Your task to perform on an android device: View the shopping cart on target. Search for "logitech g pro" on target, select the first entry, add it to the cart, then select checkout. Image 0: 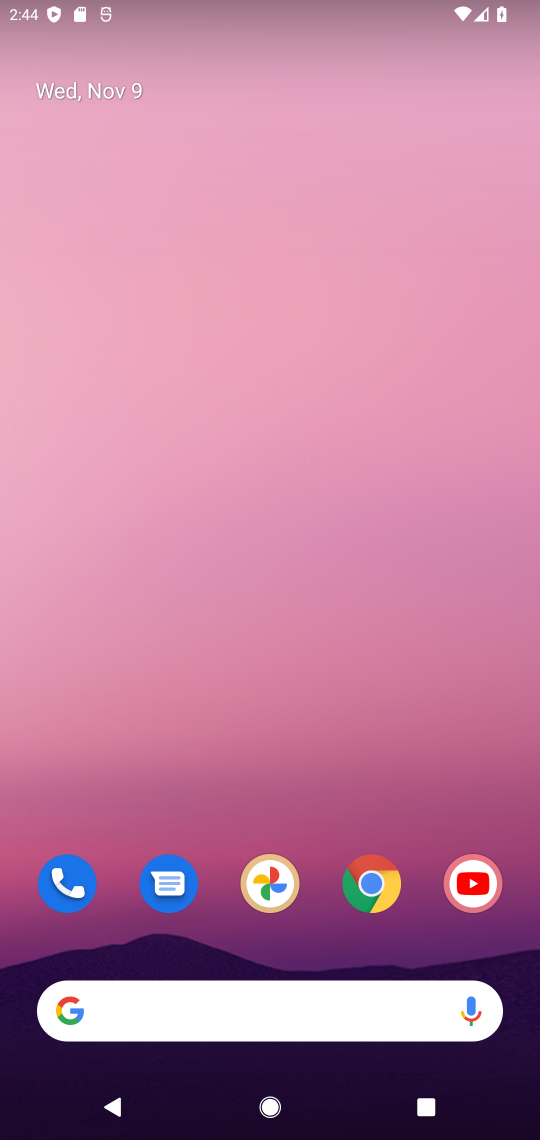
Step 0: click (379, 894)
Your task to perform on an android device: View the shopping cart on target. Search for "logitech g pro" on target, select the first entry, add it to the cart, then select checkout. Image 1: 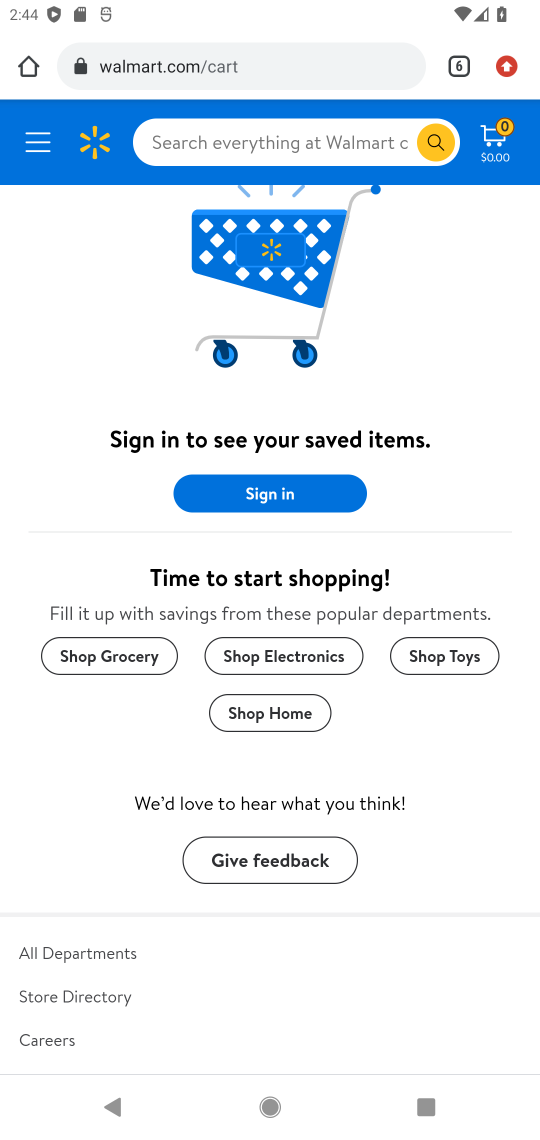
Step 1: click (459, 70)
Your task to perform on an android device: View the shopping cart on target. Search for "logitech g pro" on target, select the first entry, add it to the cart, then select checkout. Image 2: 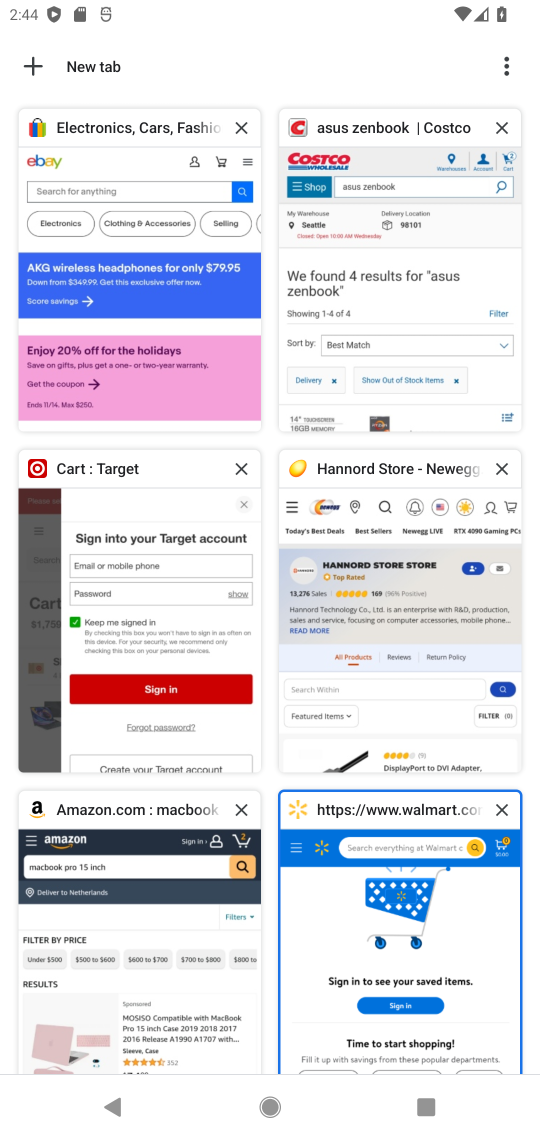
Step 2: click (164, 682)
Your task to perform on an android device: View the shopping cart on target. Search for "logitech g pro" on target, select the first entry, add it to the cart, then select checkout. Image 3: 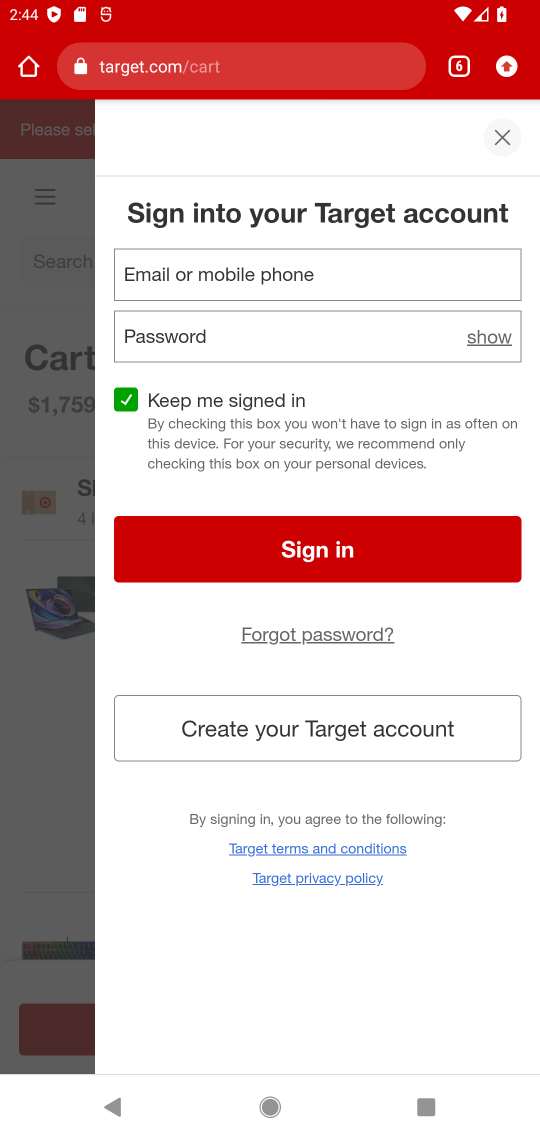
Step 3: click (452, 77)
Your task to perform on an android device: View the shopping cart on target. Search for "logitech g pro" on target, select the first entry, add it to the cart, then select checkout. Image 4: 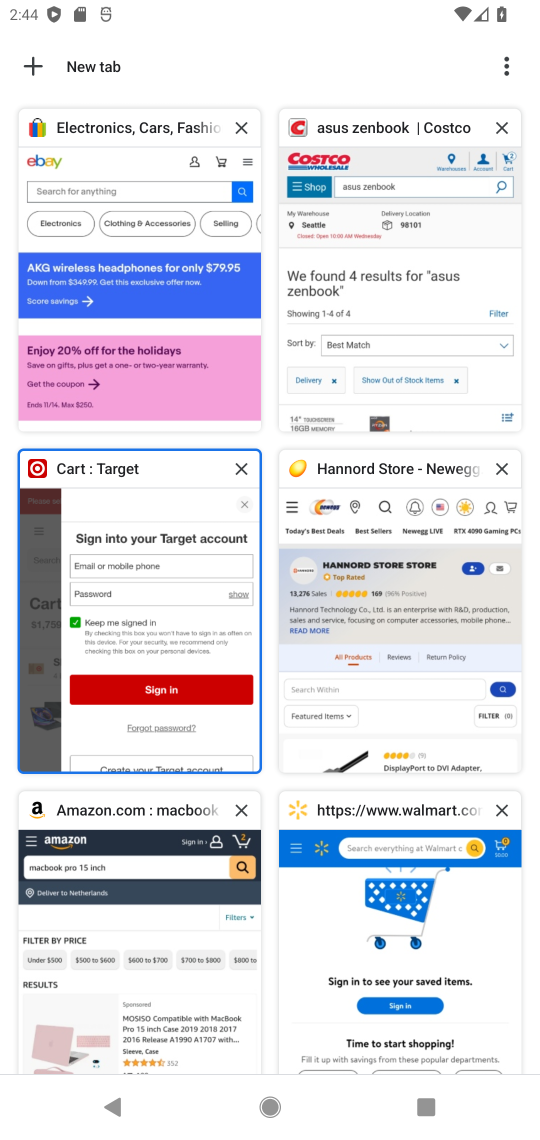
Step 4: click (121, 555)
Your task to perform on an android device: View the shopping cart on target. Search for "logitech g pro" on target, select the first entry, add it to the cart, then select checkout. Image 5: 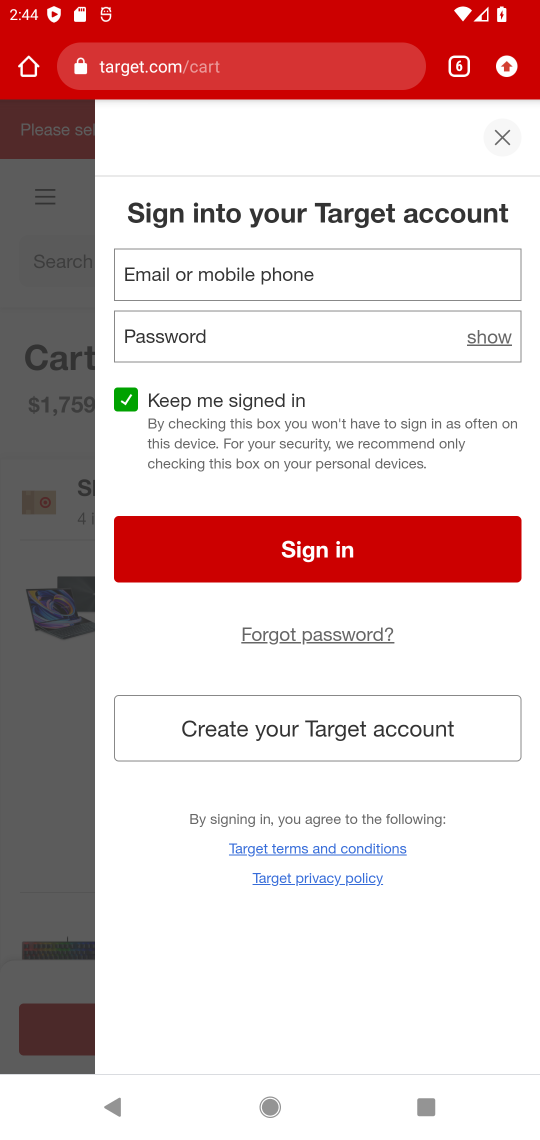
Step 5: click (501, 128)
Your task to perform on an android device: View the shopping cart on target. Search for "logitech g pro" on target, select the first entry, add it to the cart, then select checkout. Image 6: 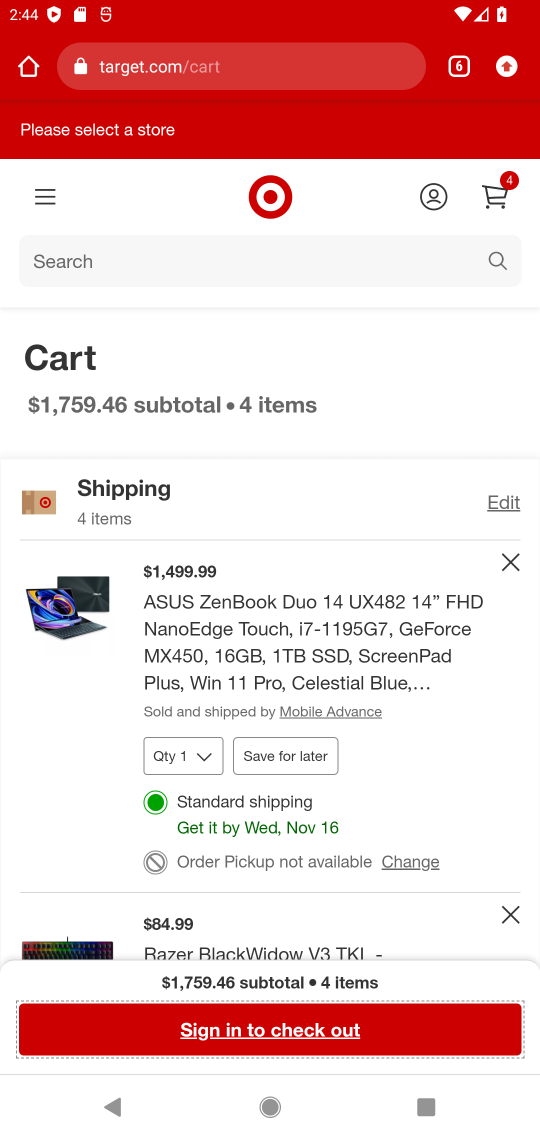
Step 6: click (82, 260)
Your task to perform on an android device: View the shopping cart on target. Search for "logitech g pro" on target, select the first entry, add it to the cart, then select checkout. Image 7: 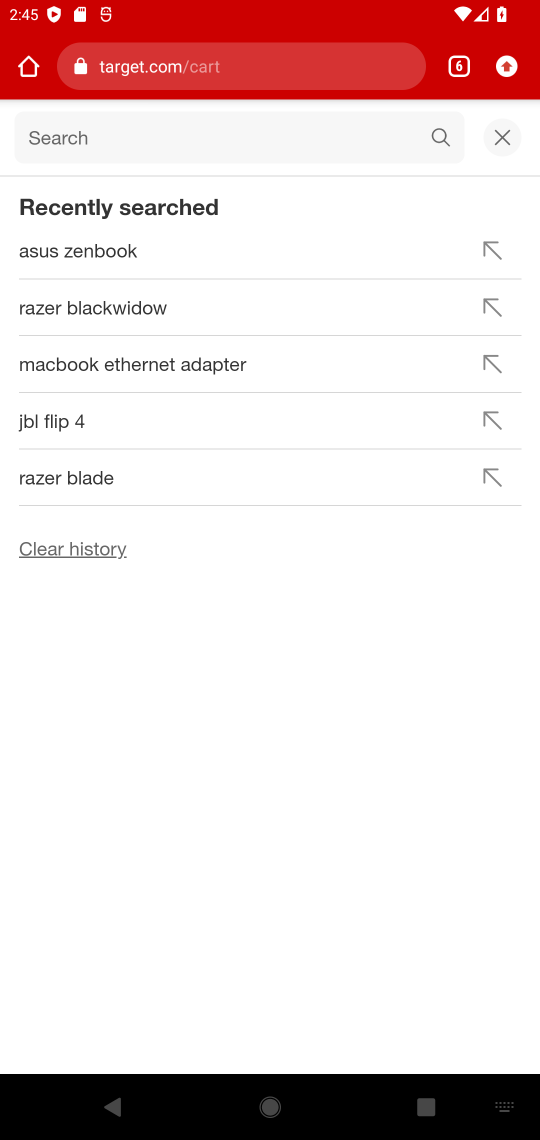
Step 7: type "logitech g pro"
Your task to perform on an android device: View the shopping cart on target. Search for "logitech g pro" on target, select the first entry, add it to the cart, then select checkout. Image 8: 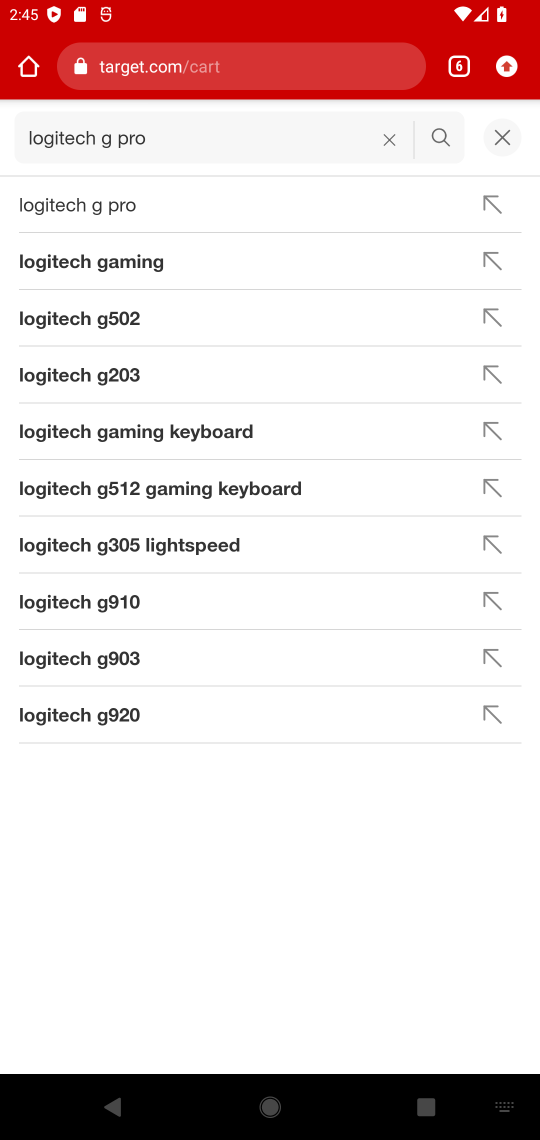
Step 8: click (104, 198)
Your task to perform on an android device: View the shopping cart on target. Search for "logitech g pro" on target, select the first entry, add it to the cart, then select checkout. Image 9: 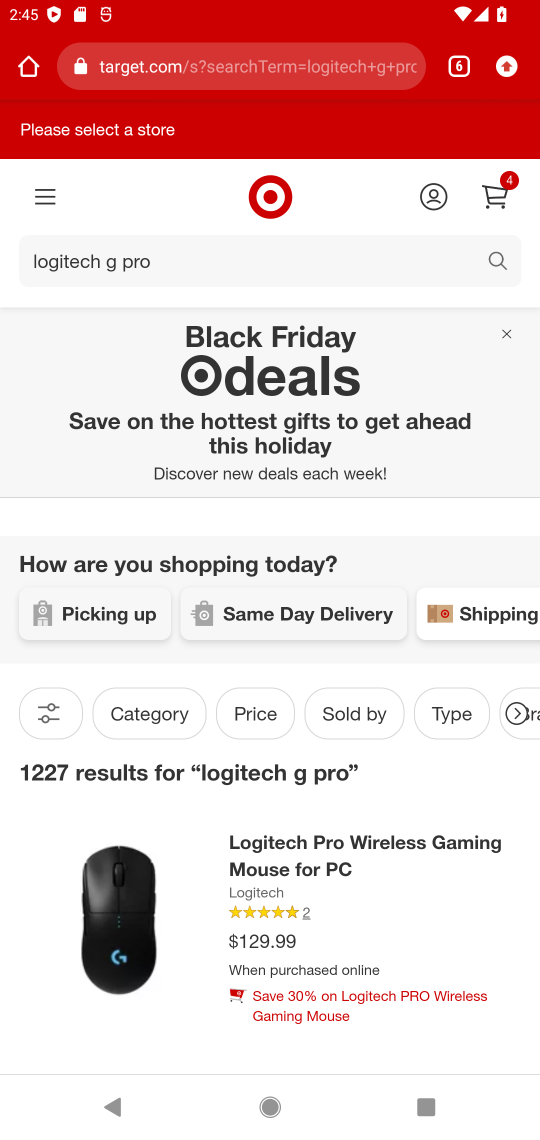
Step 9: drag from (415, 968) to (422, 476)
Your task to perform on an android device: View the shopping cart on target. Search for "logitech g pro" on target, select the first entry, add it to the cart, then select checkout. Image 10: 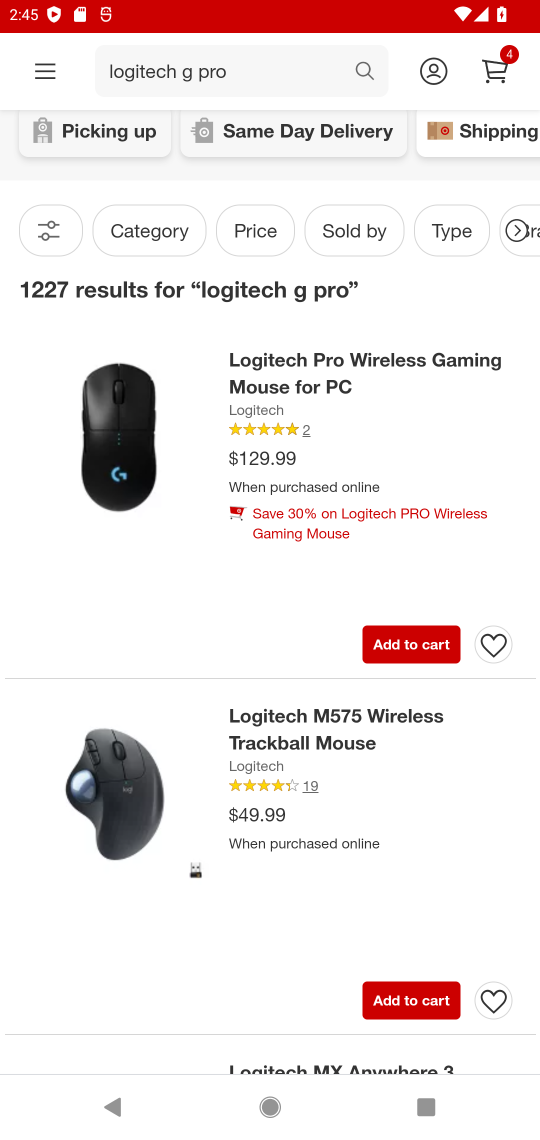
Step 10: drag from (411, 857) to (454, 62)
Your task to perform on an android device: View the shopping cart on target. Search for "logitech g pro" on target, select the first entry, add it to the cart, then select checkout. Image 11: 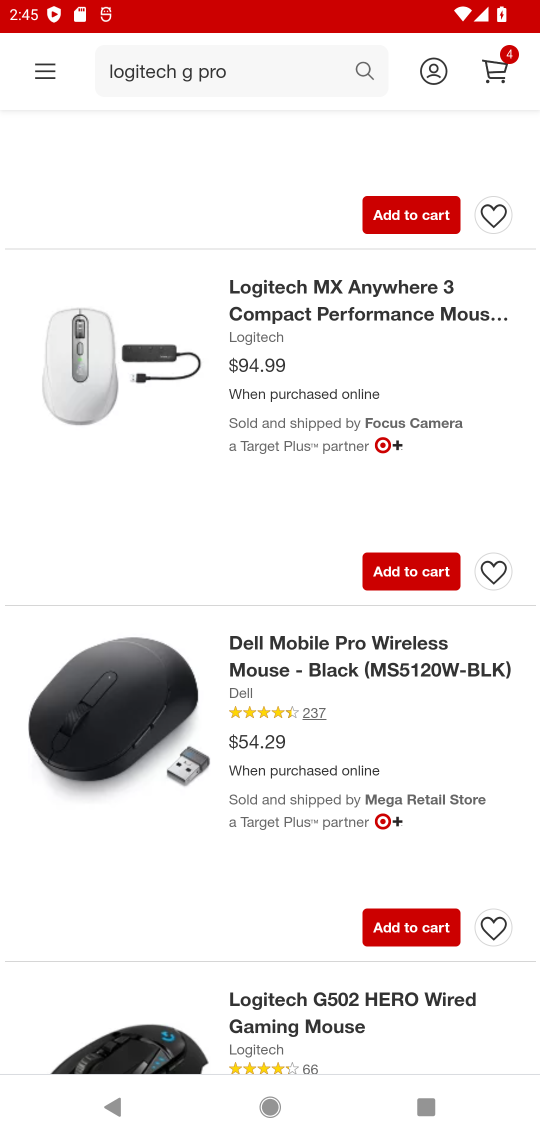
Step 11: drag from (368, 711) to (345, 323)
Your task to perform on an android device: View the shopping cart on target. Search for "logitech g pro" on target, select the first entry, add it to the cart, then select checkout. Image 12: 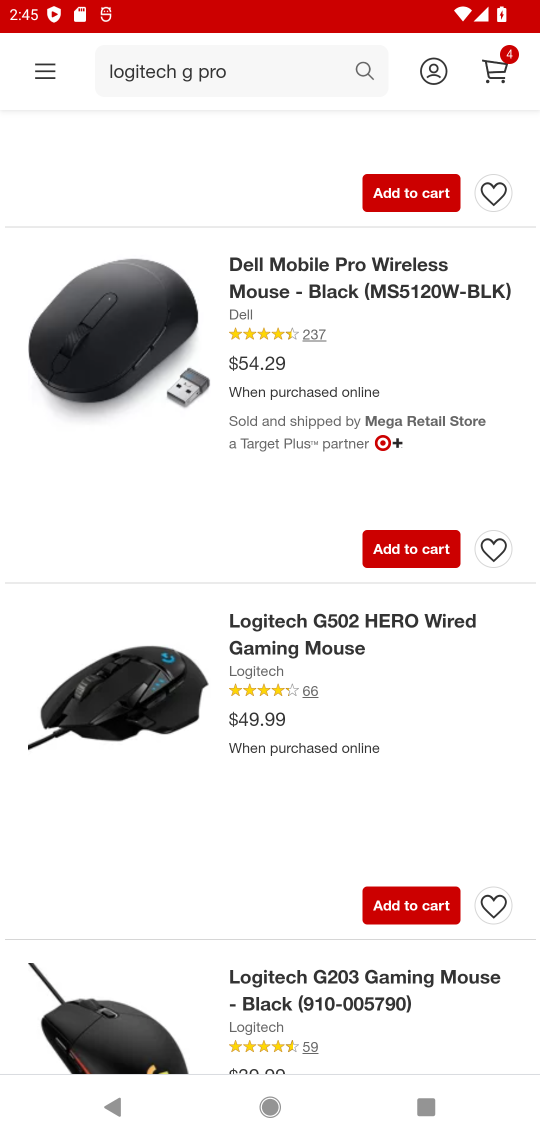
Step 12: click (391, 892)
Your task to perform on an android device: View the shopping cart on target. Search for "logitech g pro" on target, select the first entry, add it to the cart, then select checkout. Image 13: 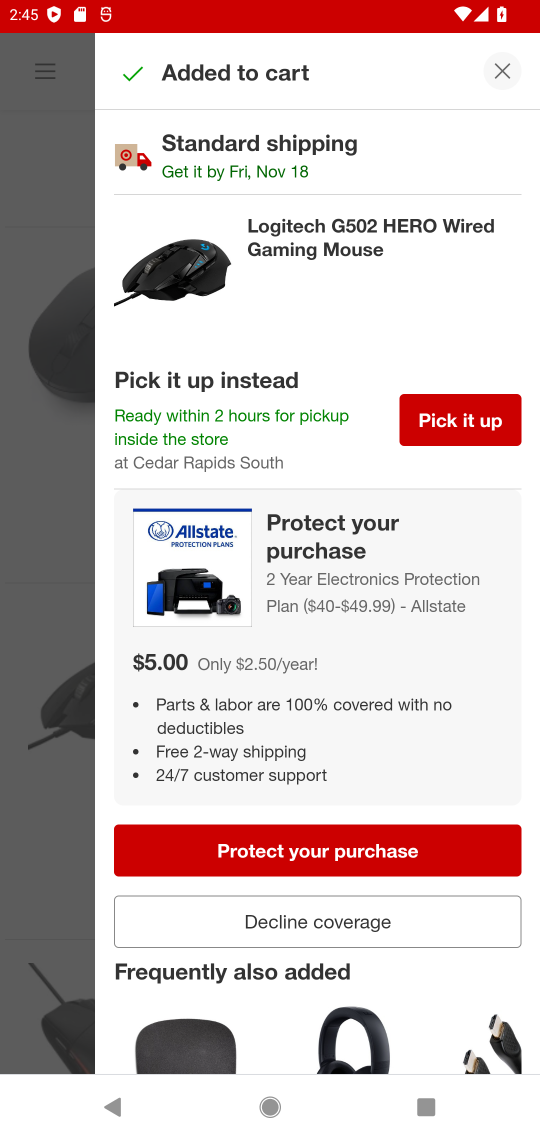
Step 13: task complete